Your task to perform on an android device: delete browsing data in the chrome app Image 0: 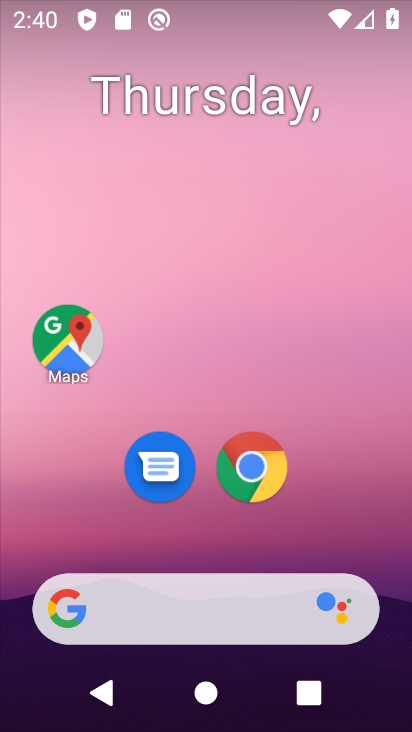
Step 0: click (272, 482)
Your task to perform on an android device: delete browsing data in the chrome app Image 1: 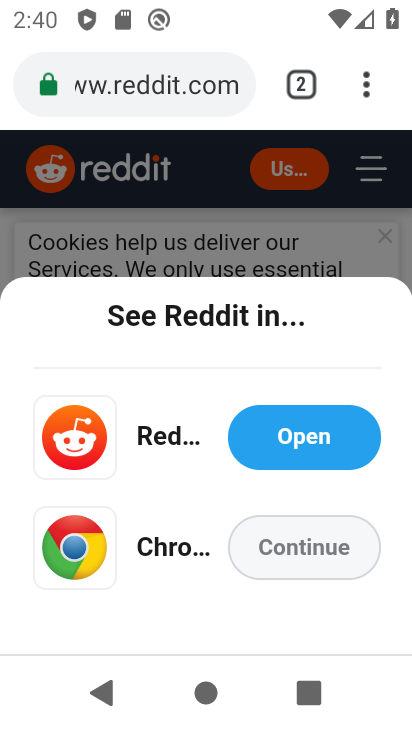
Step 1: click (314, 563)
Your task to perform on an android device: delete browsing data in the chrome app Image 2: 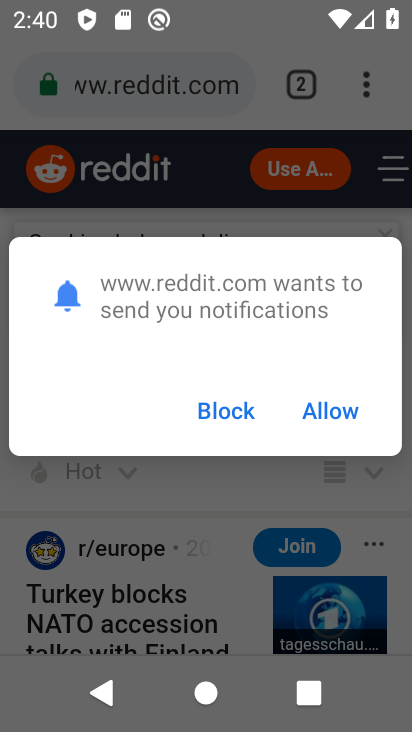
Step 2: click (329, 422)
Your task to perform on an android device: delete browsing data in the chrome app Image 3: 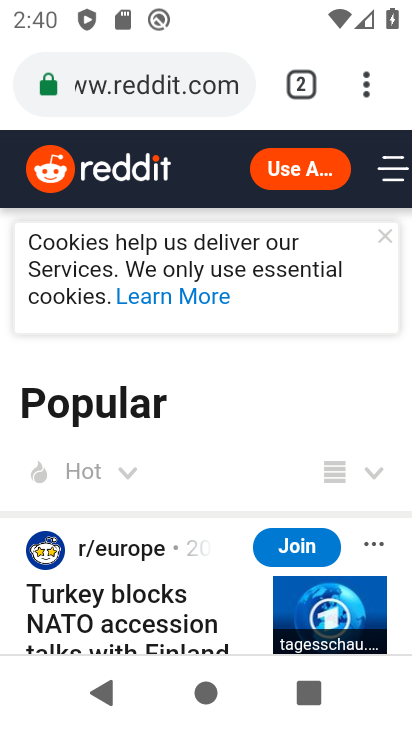
Step 3: drag from (366, 93) to (102, 479)
Your task to perform on an android device: delete browsing data in the chrome app Image 4: 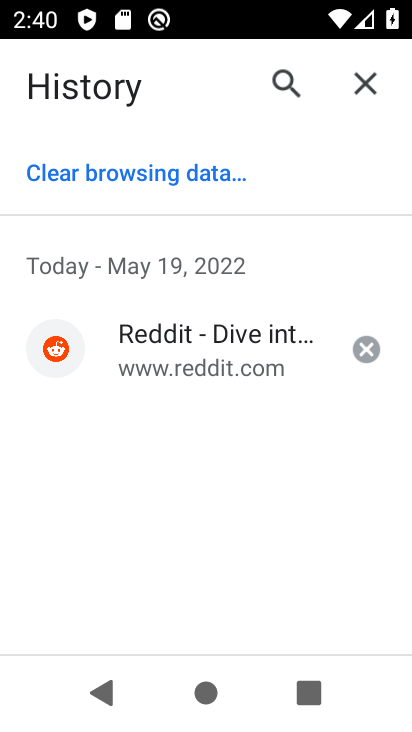
Step 4: click (144, 176)
Your task to perform on an android device: delete browsing data in the chrome app Image 5: 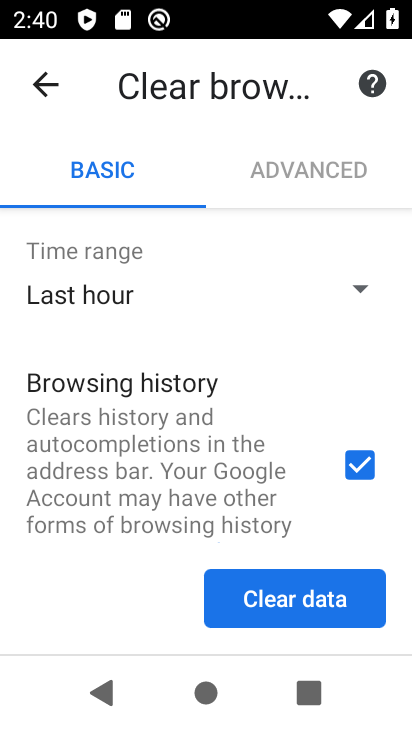
Step 5: click (340, 611)
Your task to perform on an android device: delete browsing data in the chrome app Image 6: 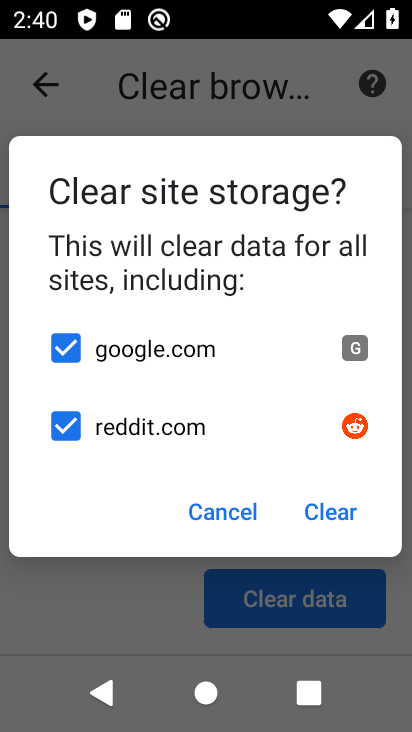
Step 6: click (332, 507)
Your task to perform on an android device: delete browsing data in the chrome app Image 7: 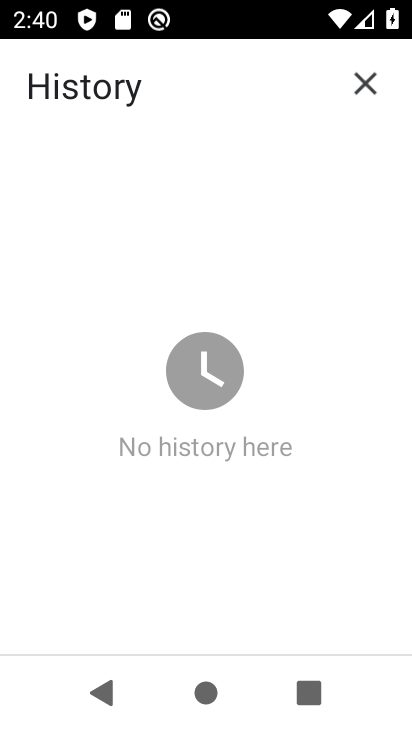
Step 7: task complete